Your task to perform on an android device: Go to location settings Image 0: 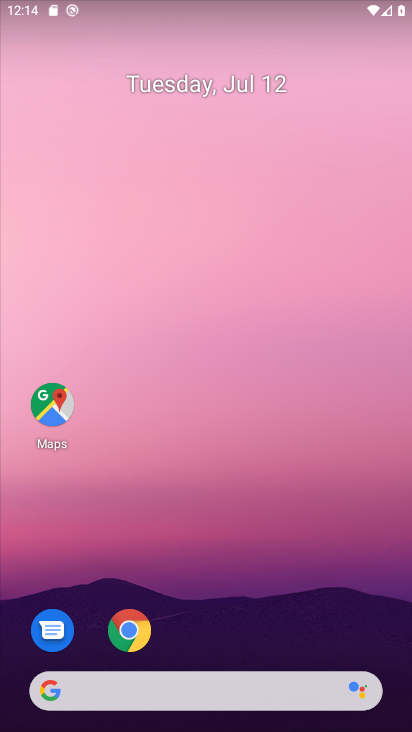
Step 0: drag from (210, 641) to (223, 3)
Your task to perform on an android device: Go to location settings Image 1: 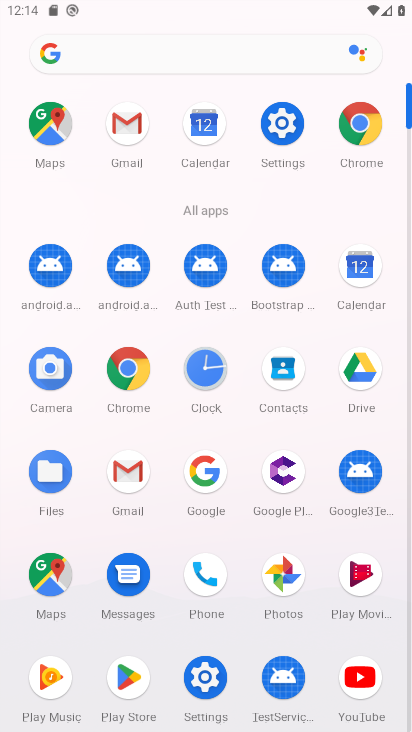
Step 1: click (370, 274)
Your task to perform on an android device: Go to location settings Image 2: 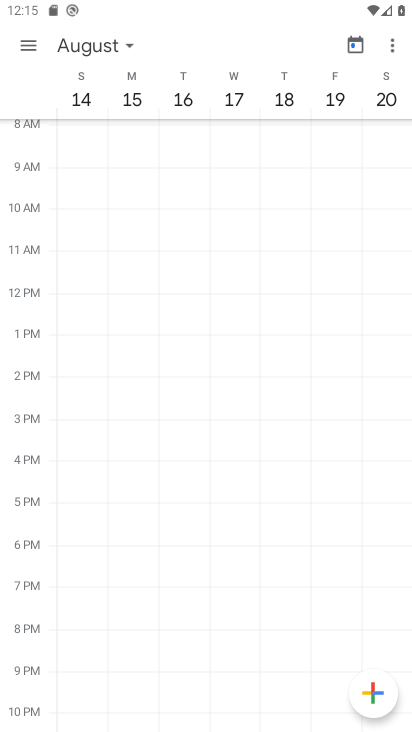
Step 2: press home button
Your task to perform on an android device: Go to location settings Image 3: 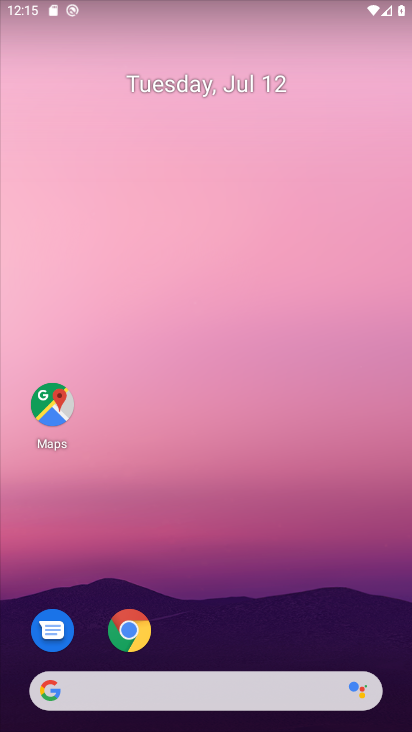
Step 3: drag from (251, 602) to (154, 2)
Your task to perform on an android device: Go to location settings Image 4: 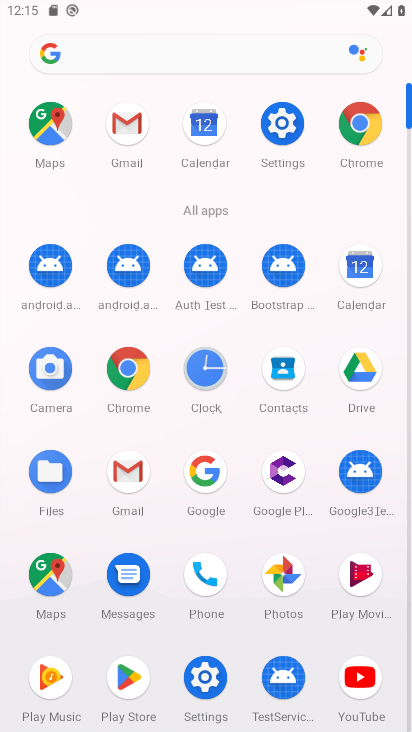
Step 4: click (288, 141)
Your task to perform on an android device: Go to location settings Image 5: 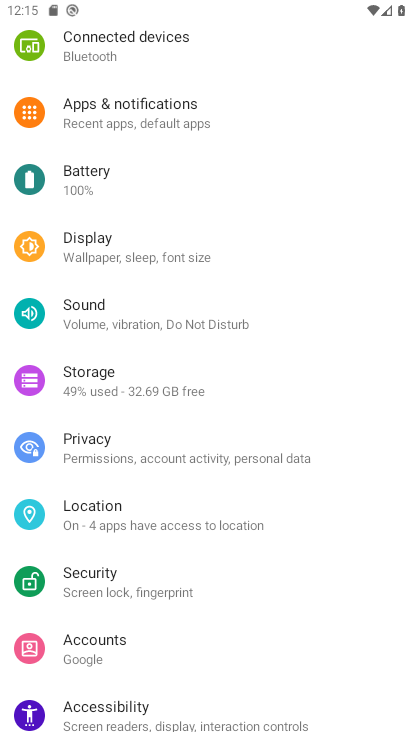
Step 5: click (142, 523)
Your task to perform on an android device: Go to location settings Image 6: 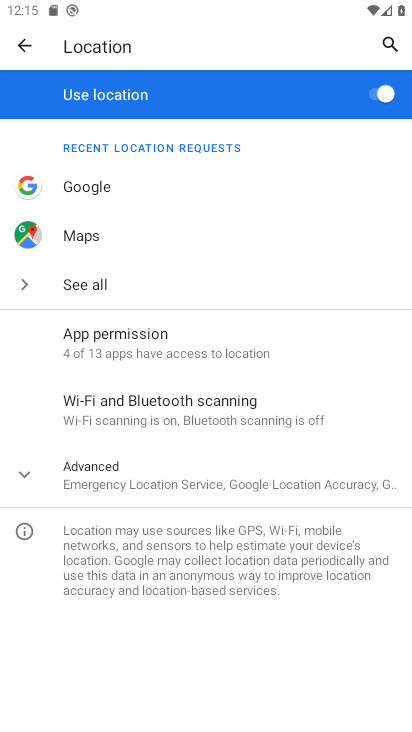
Step 6: task complete